Your task to perform on an android device: turn off notifications in google photos Image 0: 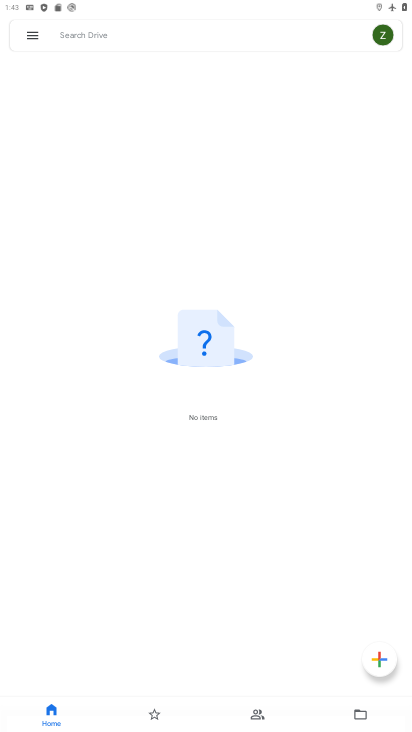
Step 0: press home button
Your task to perform on an android device: turn off notifications in google photos Image 1: 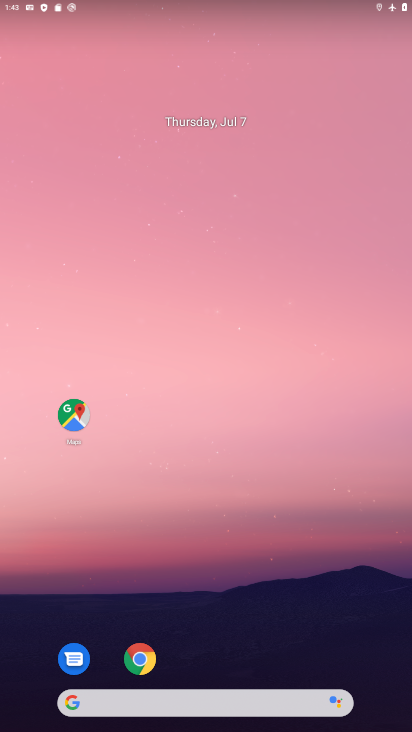
Step 1: drag from (253, 639) to (263, 269)
Your task to perform on an android device: turn off notifications in google photos Image 2: 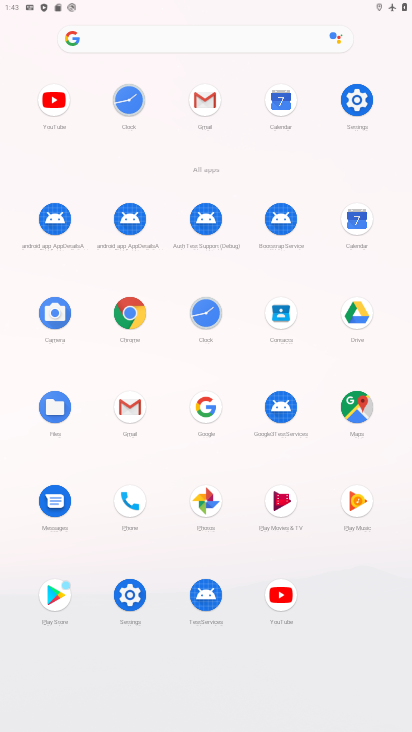
Step 2: click (201, 507)
Your task to perform on an android device: turn off notifications in google photos Image 3: 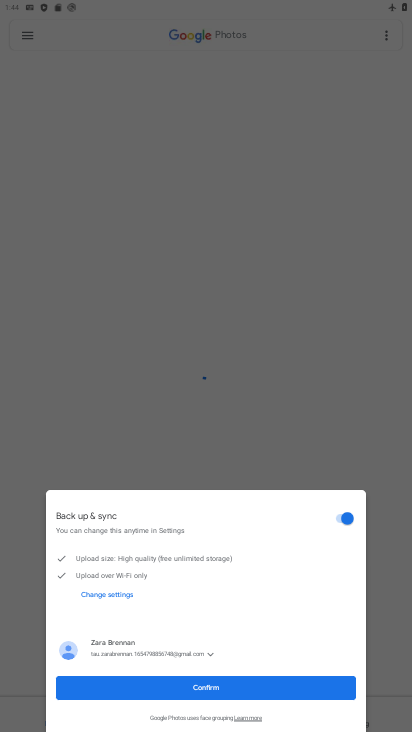
Step 3: click (213, 691)
Your task to perform on an android device: turn off notifications in google photos Image 4: 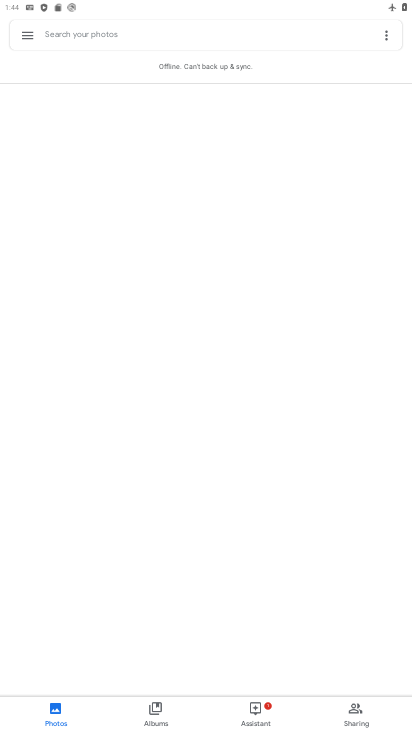
Step 4: drag from (229, 626) to (234, 470)
Your task to perform on an android device: turn off notifications in google photos Image 5: 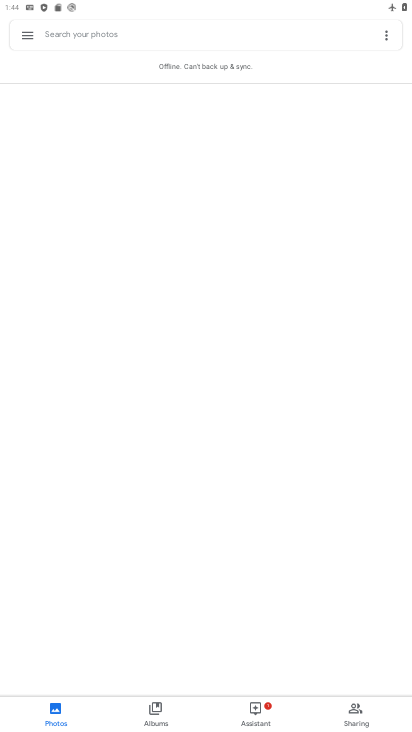
Step 5: click (22, 35)
Your task to perform on an android device: turn off notifications in google photos Image 6: 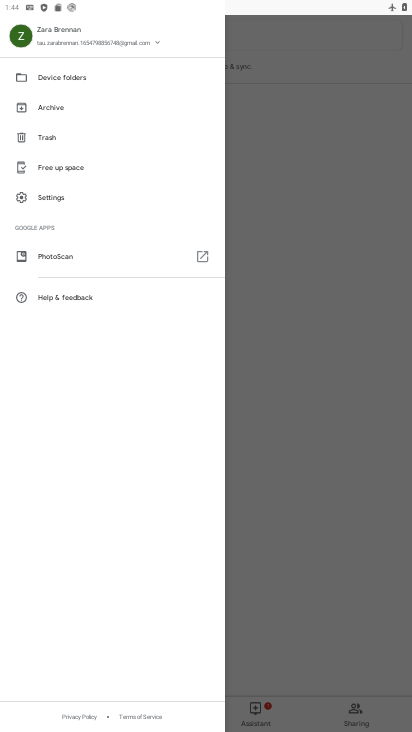
Step 6: click (39, 194)
Your task to perform on an android device: turn off notifications in google photos Image 7: 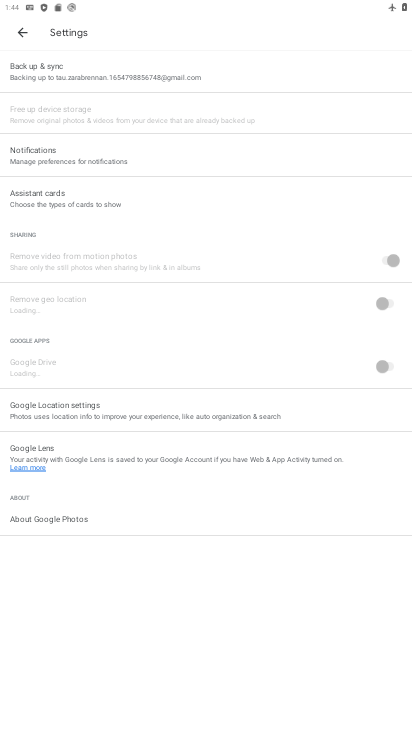
Step 7: click (58, 156)
Your task to perform on an android device: turn off notifications in google photos Image 8: 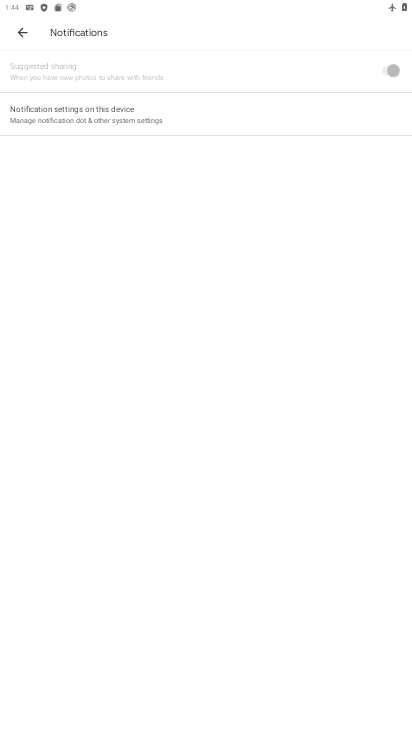
Step 8: click (240, 125)
Your task to perform on an android device: turn off notifications in google photos Image 9: 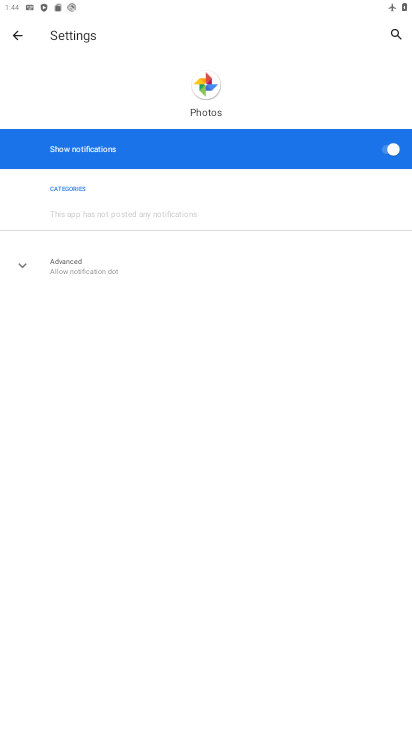
Step 9: click (336, 152)
Your task to perform on an android device: turn off notifications in google photos Image 10: 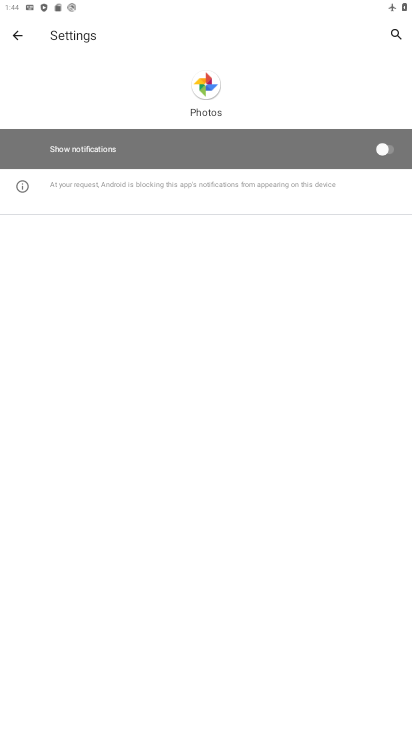
Step 10: task complete